Your task to perform on an android device: open app "File Manager" (install if not already installed) Image 0: 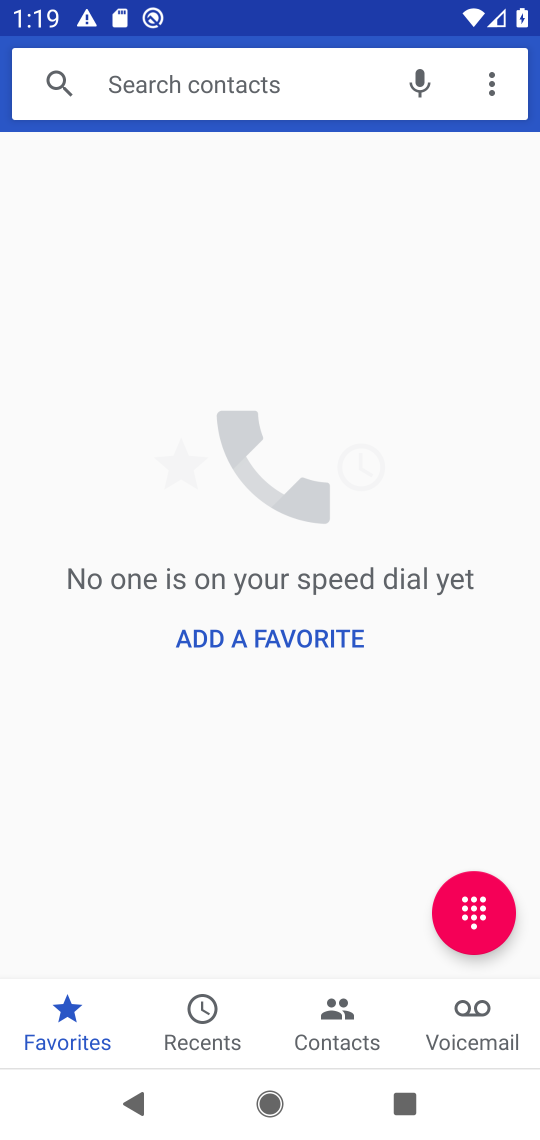
Step 0: press back button
Your task to perform on an android device: open app "File Manager" (install if not already installed) Image 1: 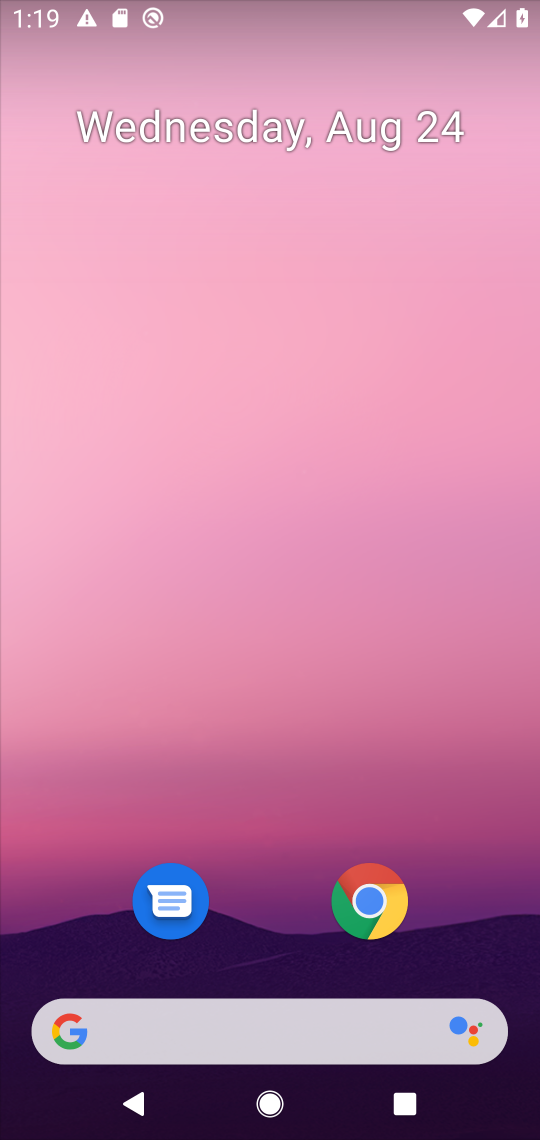
Step 1: drag from (221, 954) to (339, 78)
Your task to perform on an android device: open app "File Manager" (install if not already installed) Image 2: 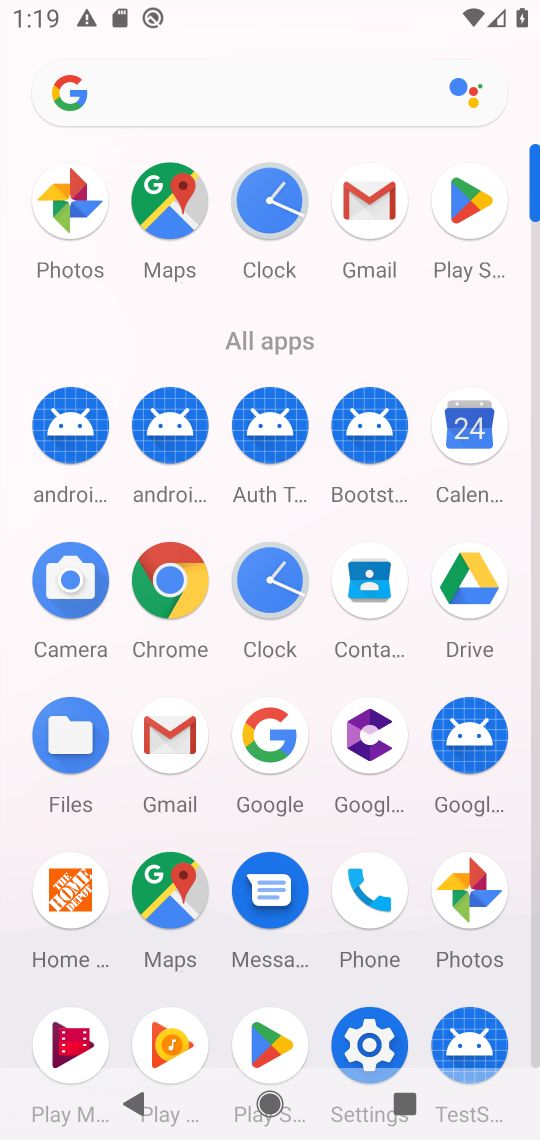
Step 2: click (462, 207)
Your task to perform on an android device: open app "File Manager" (install if not already installed) Image 3: 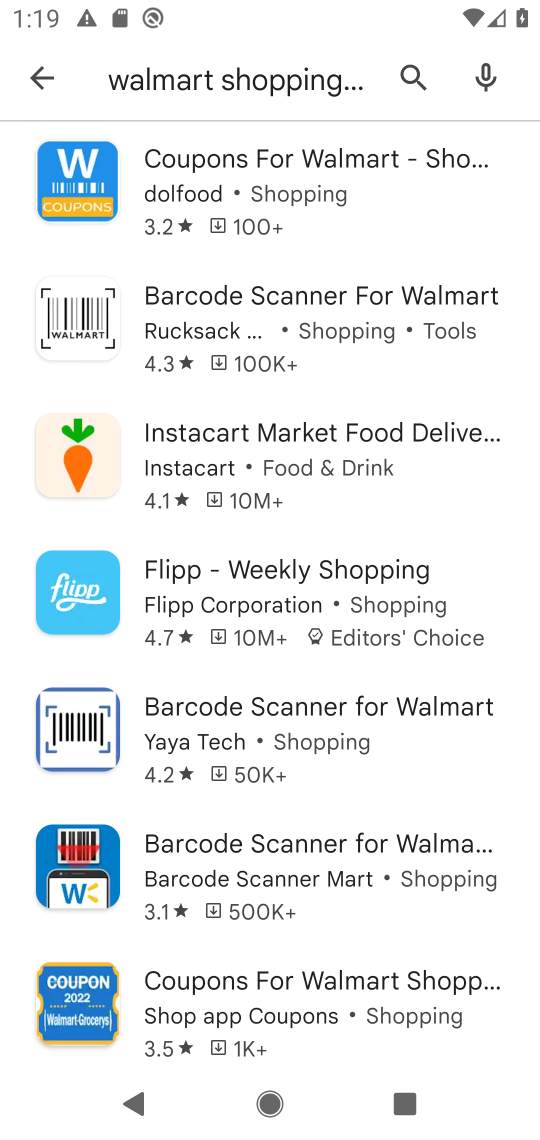
Step 3: click (410, 74)
Your task to perform on an android device: open app "File Manager" (install if not already installed) Image 4: 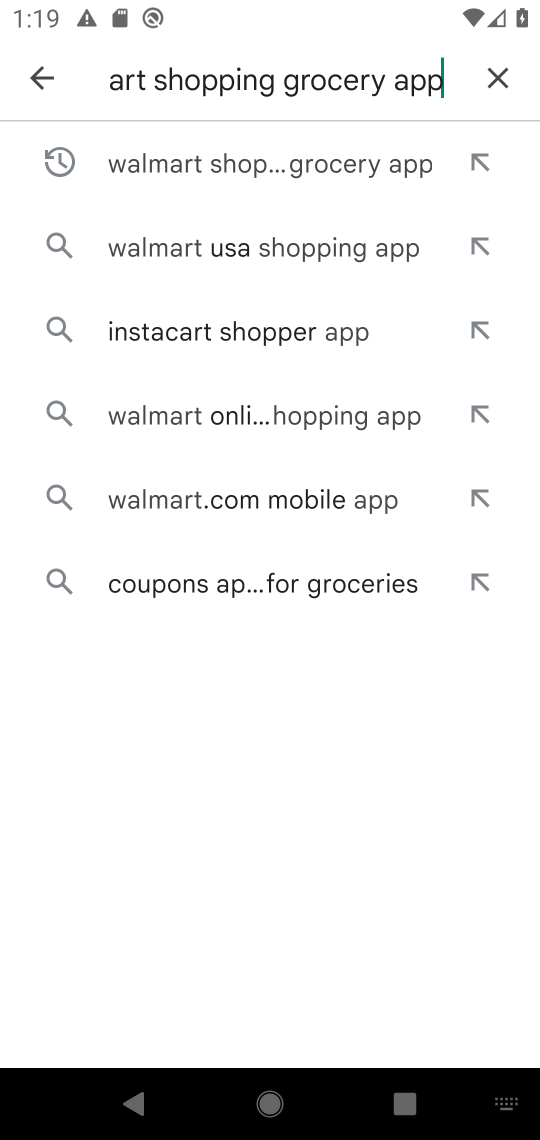
Step 4: click (502, 87)
Your task to perform on an android device: open app "File Manager" (install if not already installed) Image 5: 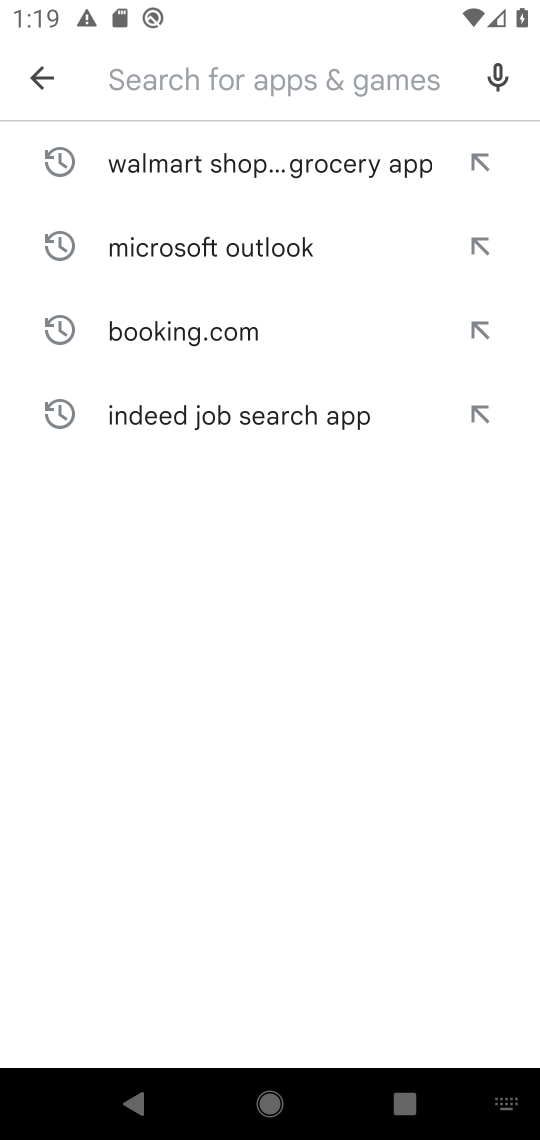
Step 5: click (195, 70)
Your task to perform on an android device: open app "File Manager" (install if not already installed) Image 6: 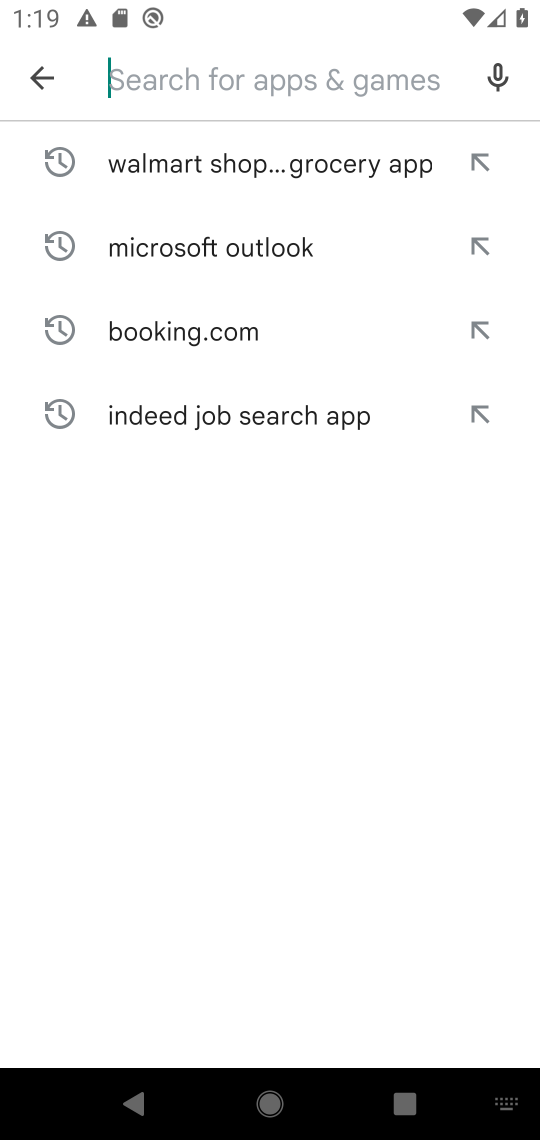
Step 6: type "File Manager"
Your task to perform on an android device: open app "File Manager" (install if not already installed) Image 7: 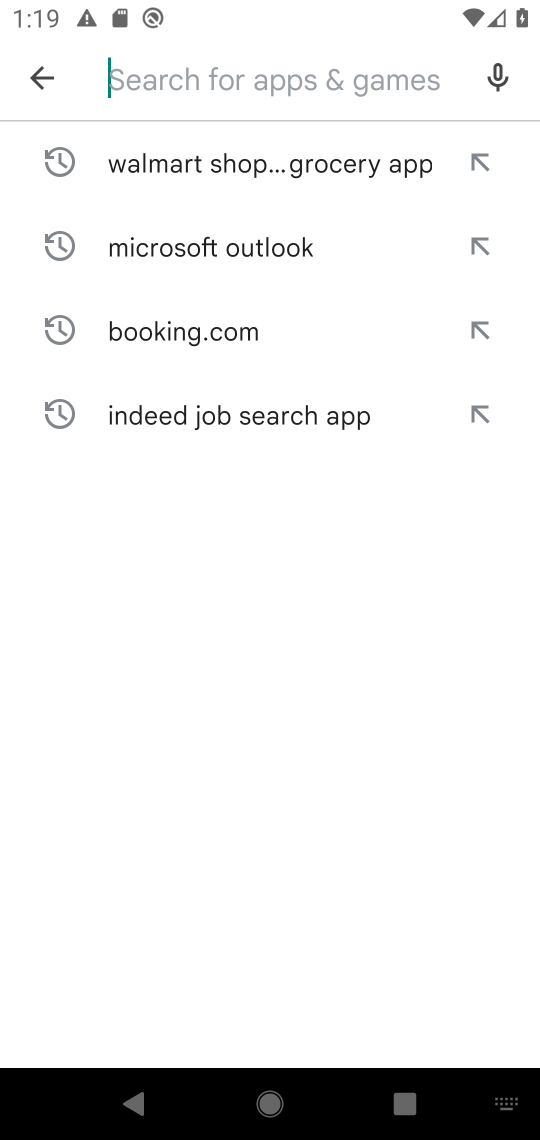
Step 7: click (299, 750)
Your task to perform on an android device: open app "File Manager" (install if not already installed) Image 8: 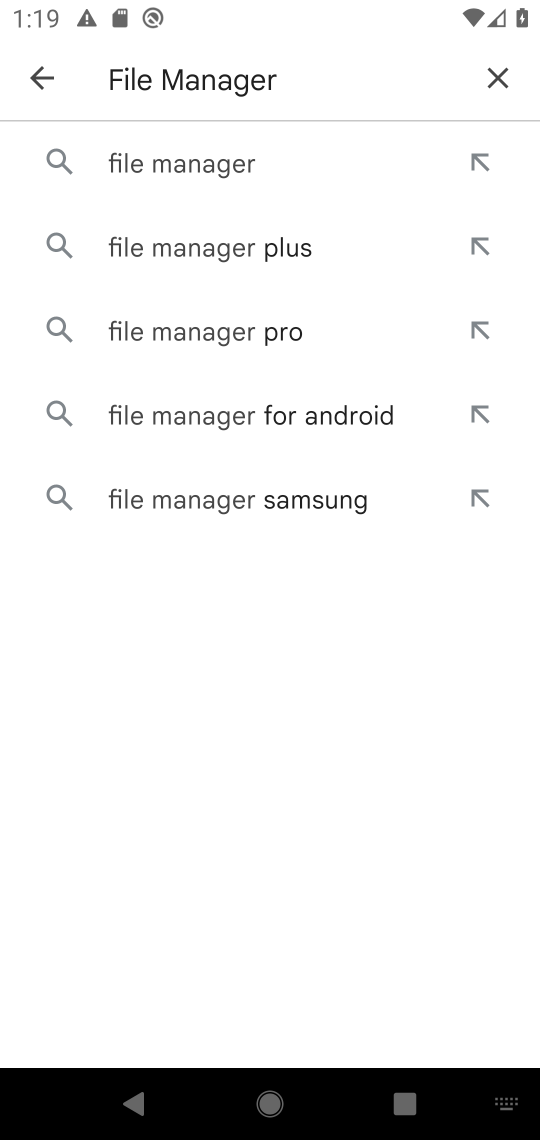
Step 8: click (172, 146)
Your task to perform on an android device: open app "File Manager" (install if not already installed) Image 9: 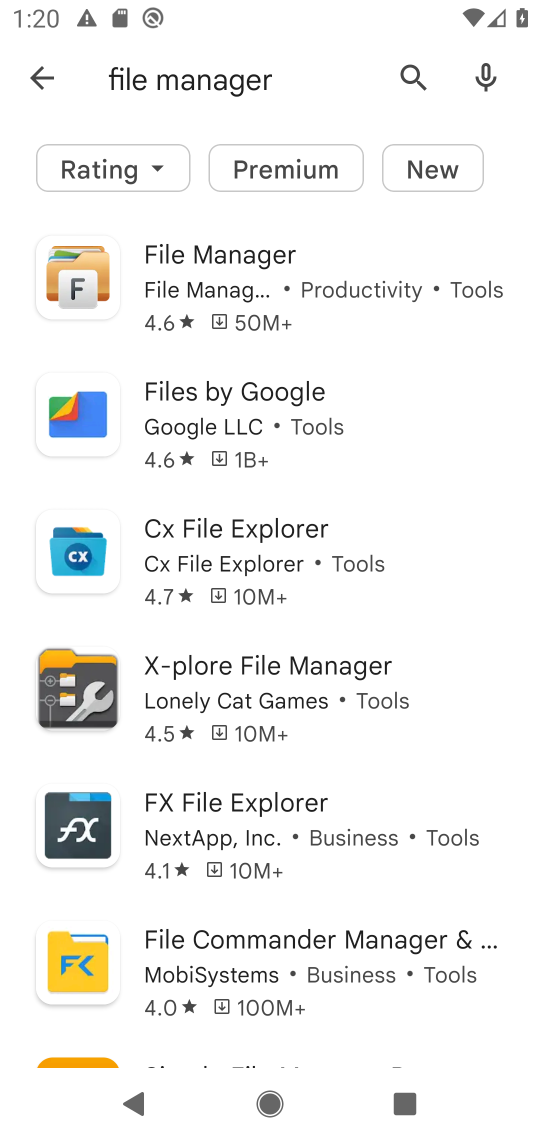
Step 9: click (187, 271)
Your task to perform on an android device: open app "File Manager" (install if not already installed) Image 10: 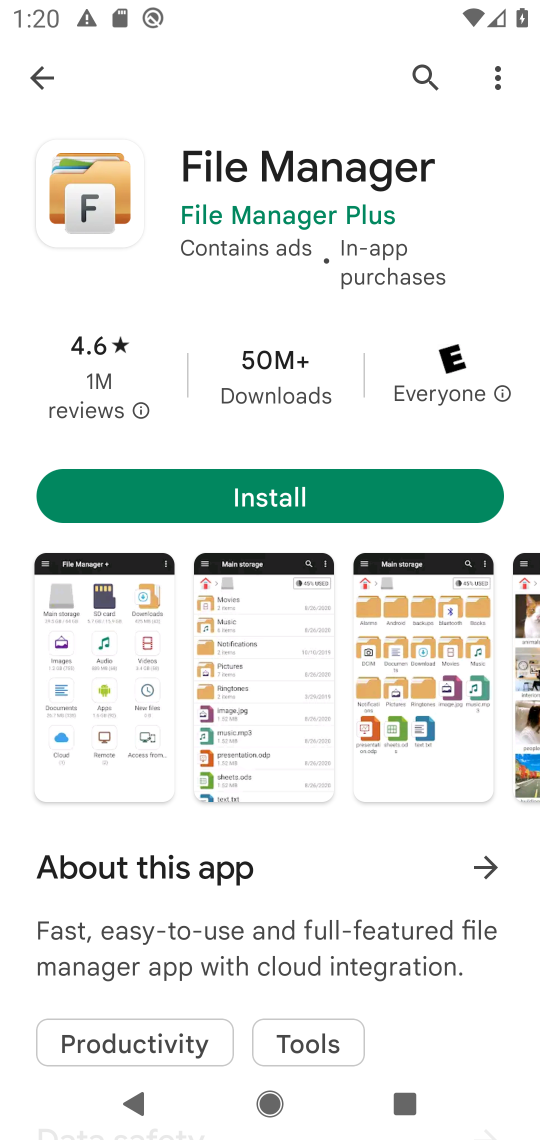
Step 10: click (251, 497)
Your task to perform on an android device: open app "File Manager" (install if not already installed) Image 11: 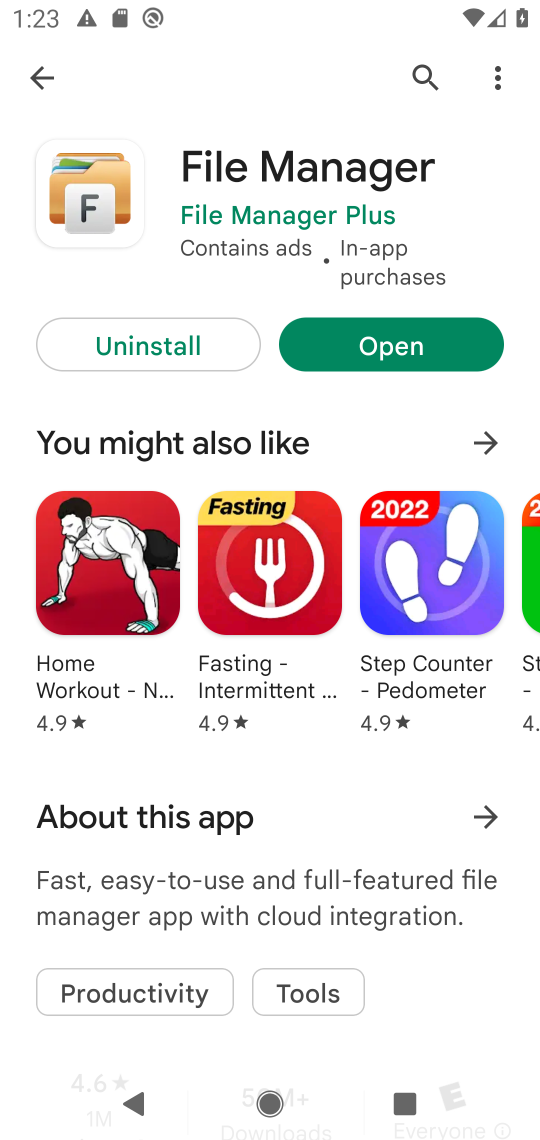
Step 11: click (376, 358)
Your task to perform on an android device: open app "File Manager" (install if not already installed) Image 12: 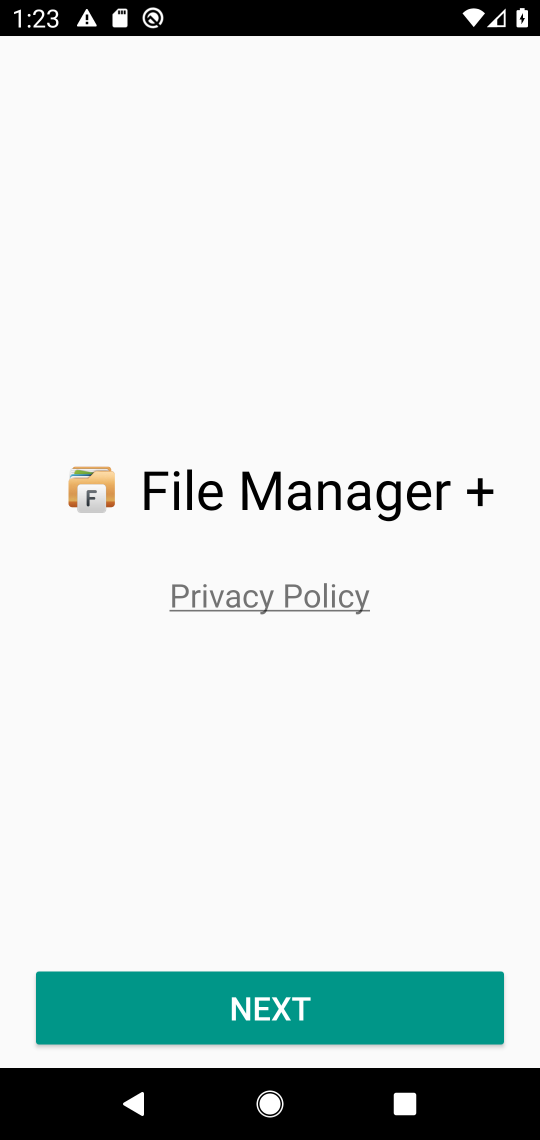
Step 12: task complete